Your task to perform on an android device: Is it going to rain this weekend? Image 0: 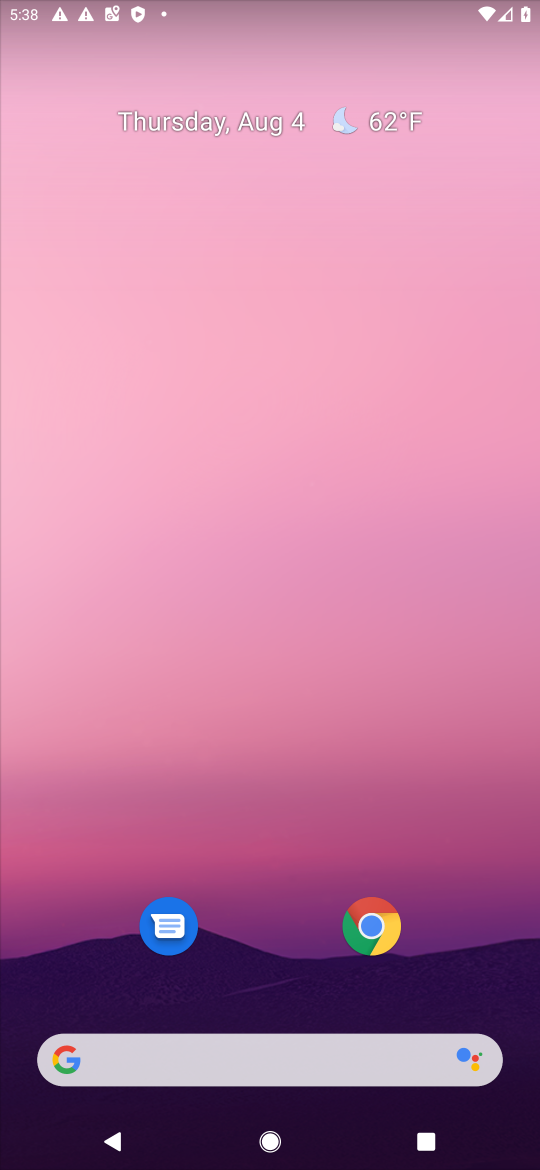
Step 0: press home button
Your task to perform on an android device: Is it going to rain this weekend? Image 1: 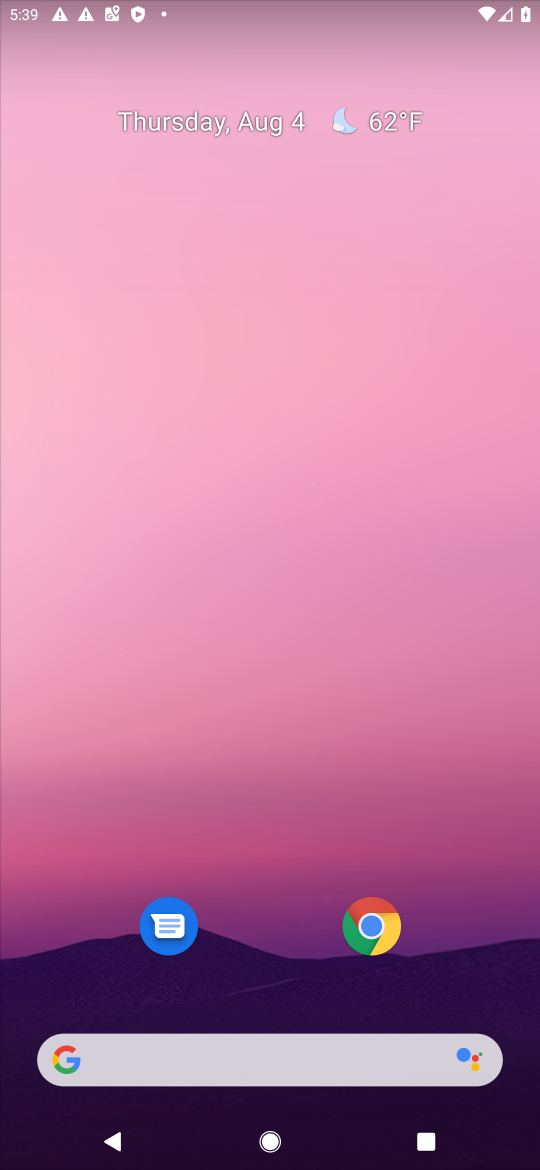
Step 1: click (67, 1049)
Your task to perform on an android device: Is it going to rain this weekend? Image 2: 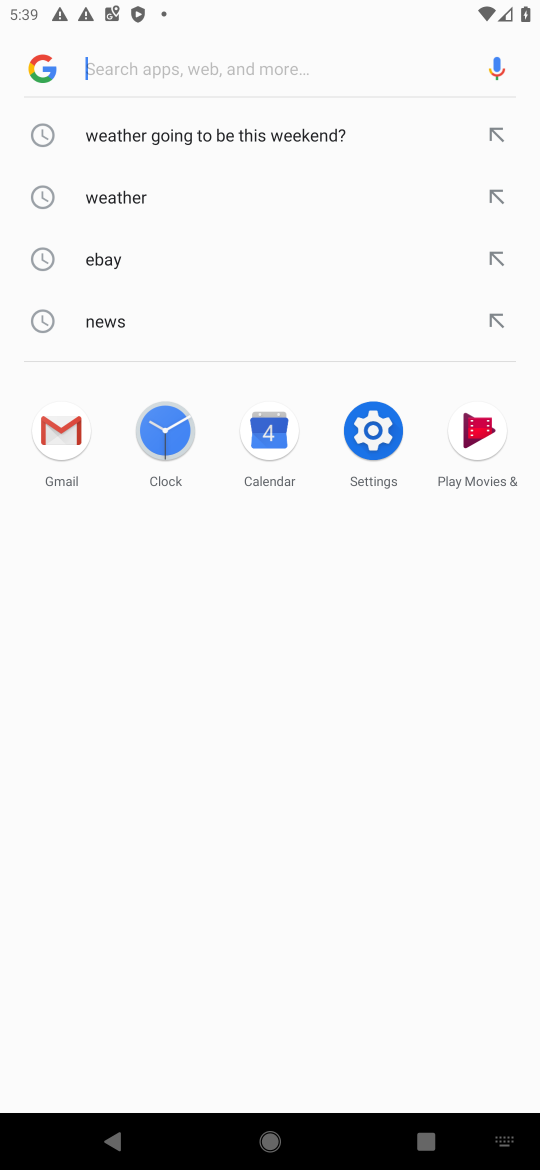
Step 2: type "rain this weekend?"
Your task to perform on an android device: Is it going to rain this weekend? Image 3: 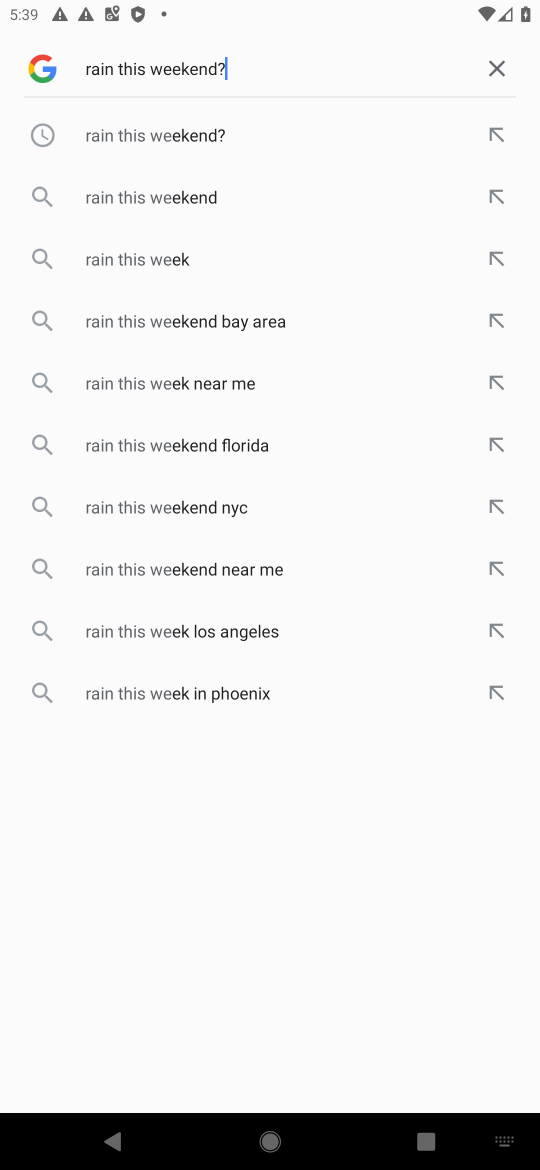
Step 3: press enter
Your task to perform on an android device: Is it going to rain this weekend? Image 4: 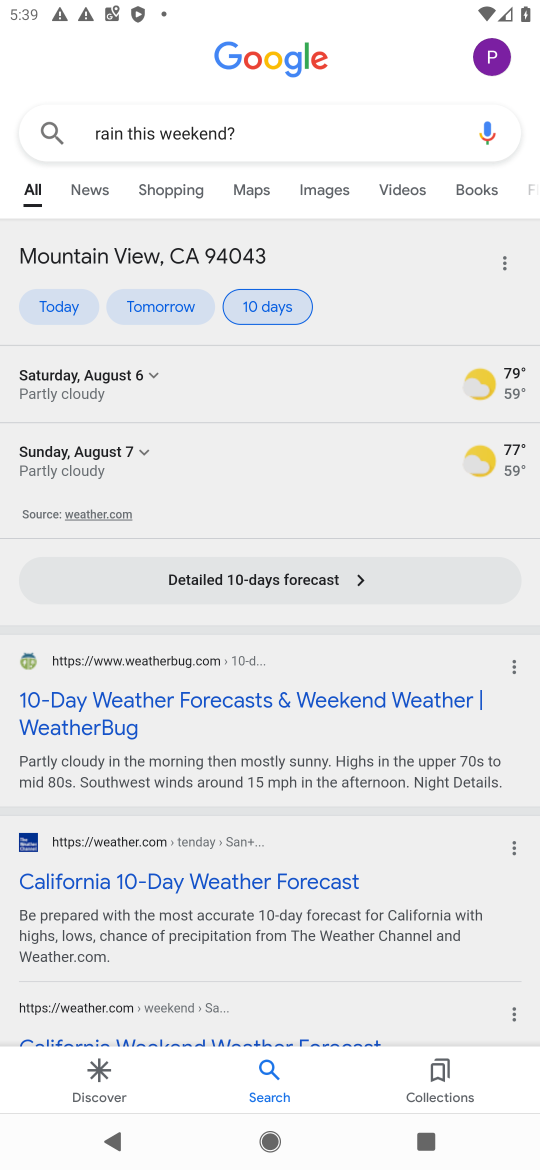
Step 4: task complete